Your task to perform on an android device: Empty the shopping cart on target. Search for "macbook pro 13 inch" on target, select the first entry, add it to the cart, then select checkout. Image 0: 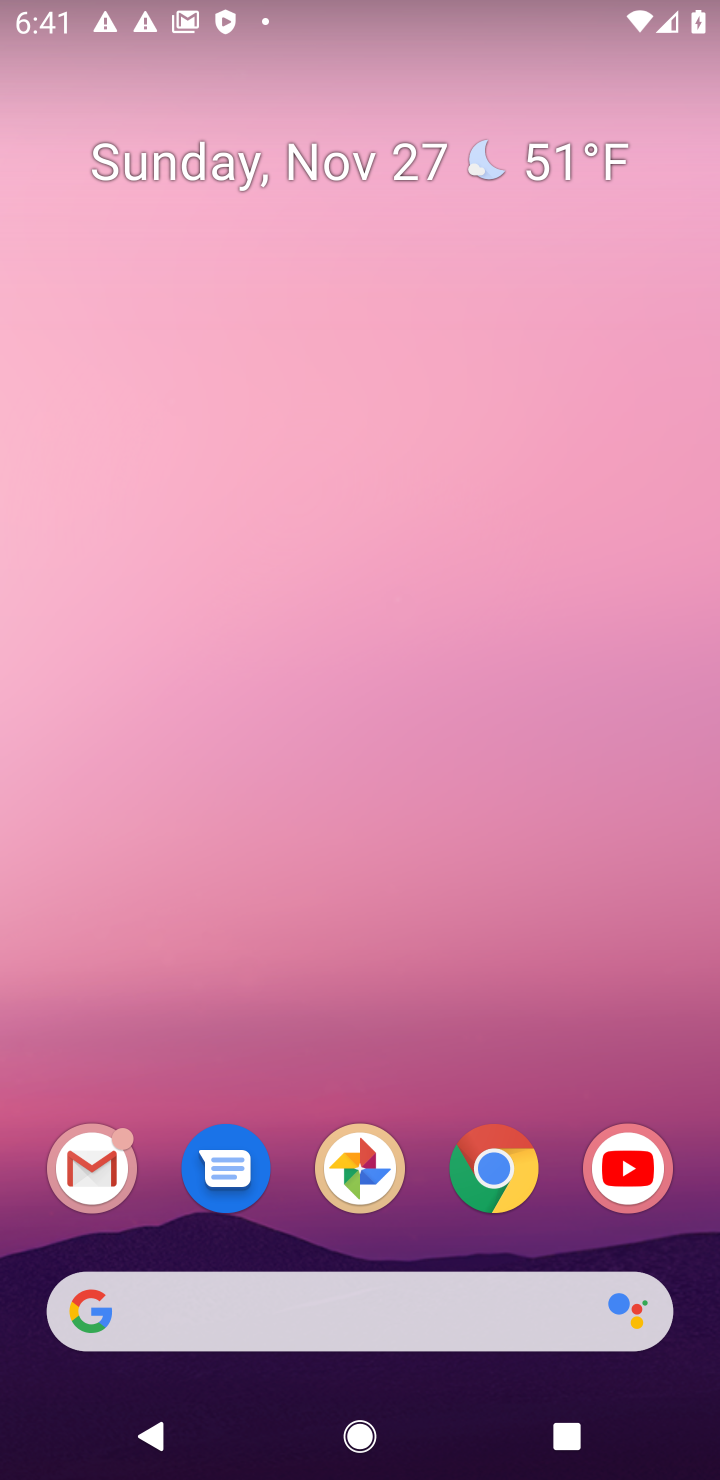
Step 0: click (494, 1162)
Your task to perform on an android device: Empty the shopping cart on target. Search for "macbook pro 13 inch" on target, select the first entry, add it to the cart, then select checkout. Image 1: 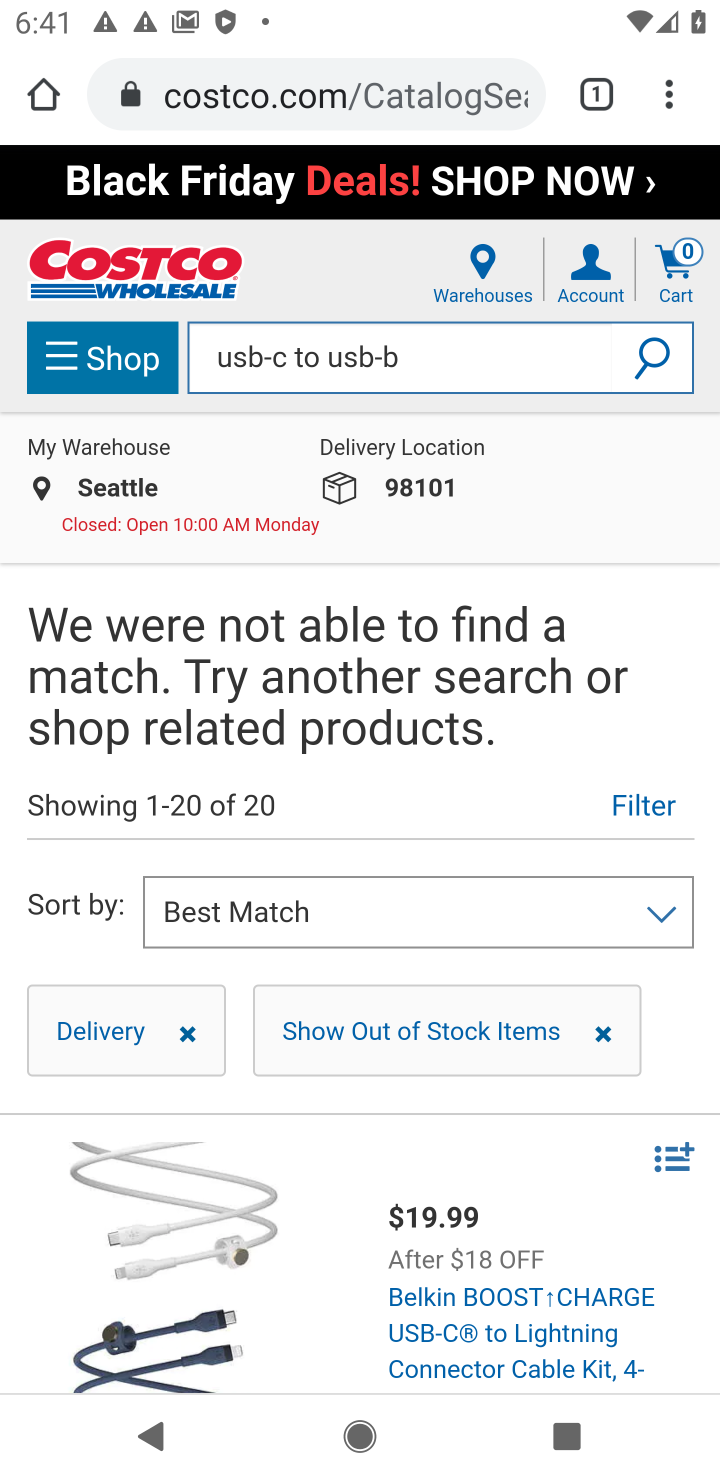
Step 1: click (362, 98)
Your task to perform on an android device: Empty the shopping cart on target. Search for "macbook pro 13 inch" on target, select the first entry, add it to the cart, then select checkout. Image 2: 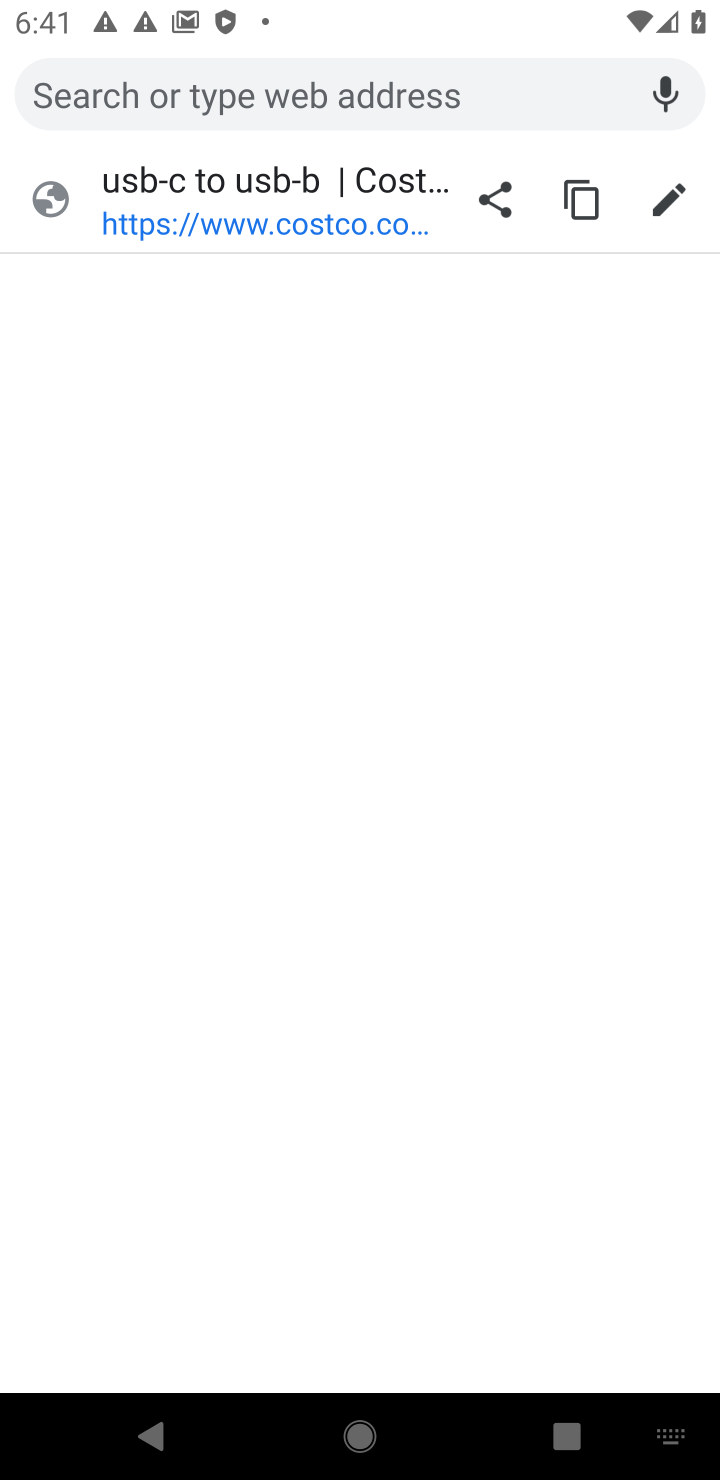
Step 2: type "target"
Your task to perform on an android device: Empty the shopping cart on target. Search for "macbook pro 13 inch" on target, select the first entry, add it to the cart, then select checkout. Image 3: 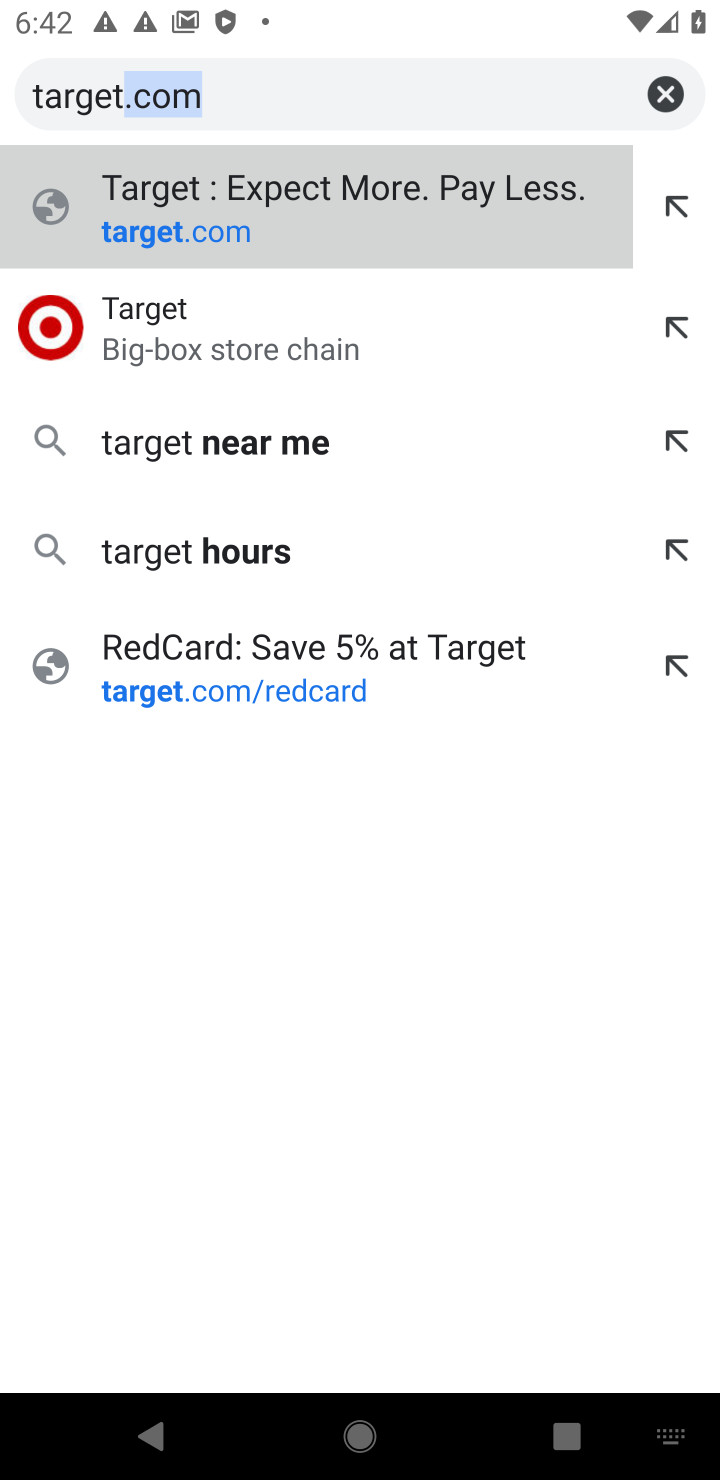
Step 3: click (171, 362)
Your task to perform on an android device: Empty the shopping cart on target. Search for "macbook pro 13 inch" on target, select the first entry, add it to the cart, then select checkout. Image 4: 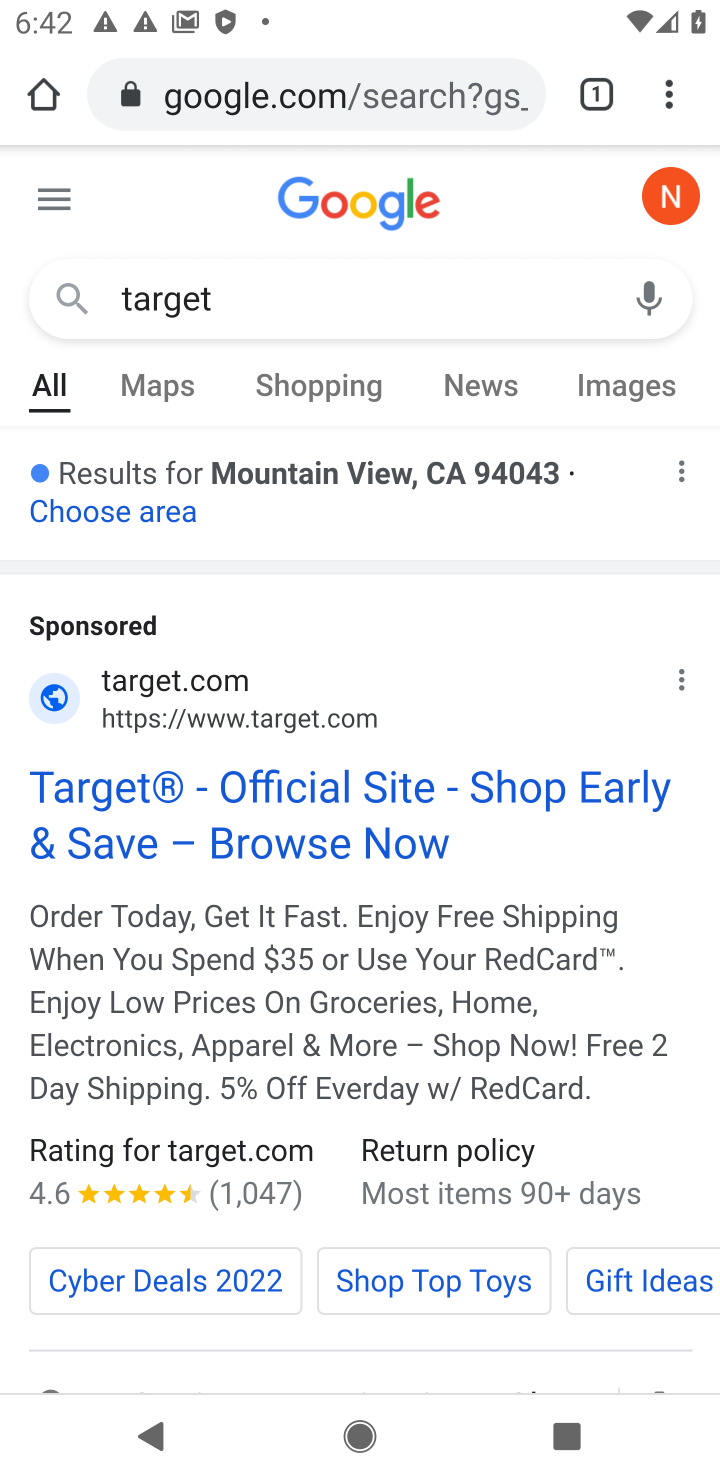
Step 4: click (266, 728)
Your task to perform on an android device: Empty the shopping cart on target. Search for "macbook pro 13 inch" on target, select the first entry, add it to the cart, then select checkout. Image 5: 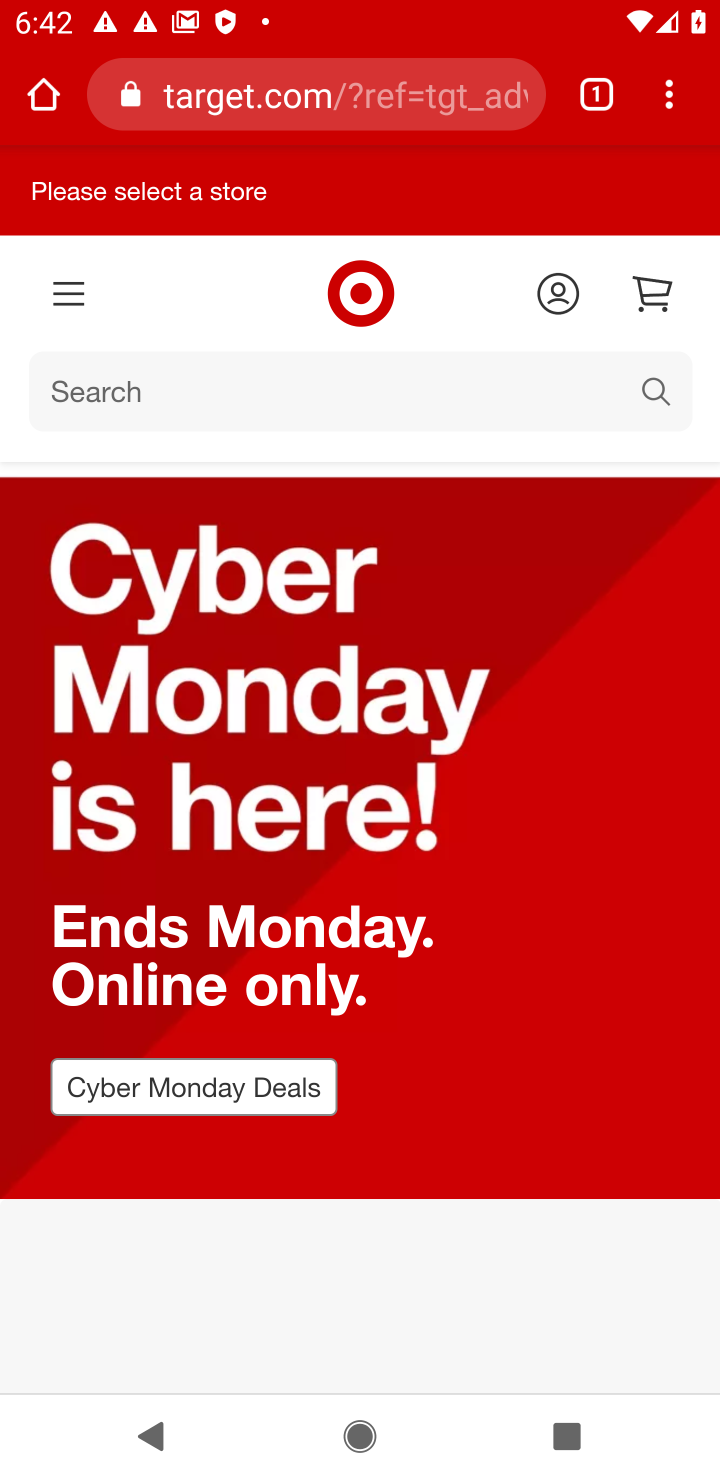
Step 5: click (655, 302)
Your task to perform on an android device: Empty the shopping cart on target. Search for "macbook pro 13 inch" on target, select the first entry, add it to the cart, then select checkout. Image 6: 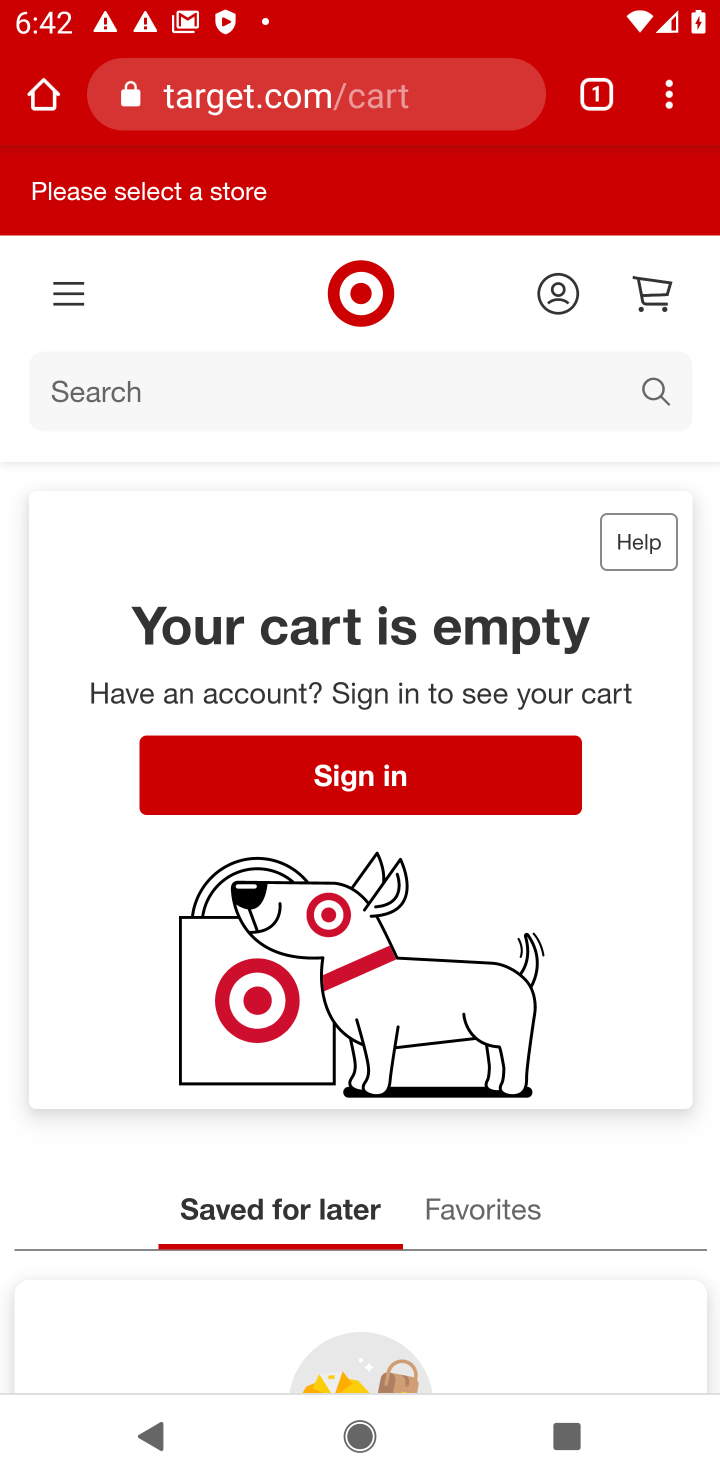
Step 6: click (298, 396)
Your task to perform on an android device: Empty the shopping cart on target. Search for "macbook pro 13 inch" on target, select the first entry, add it to the cart, then select checkout. Image 7: 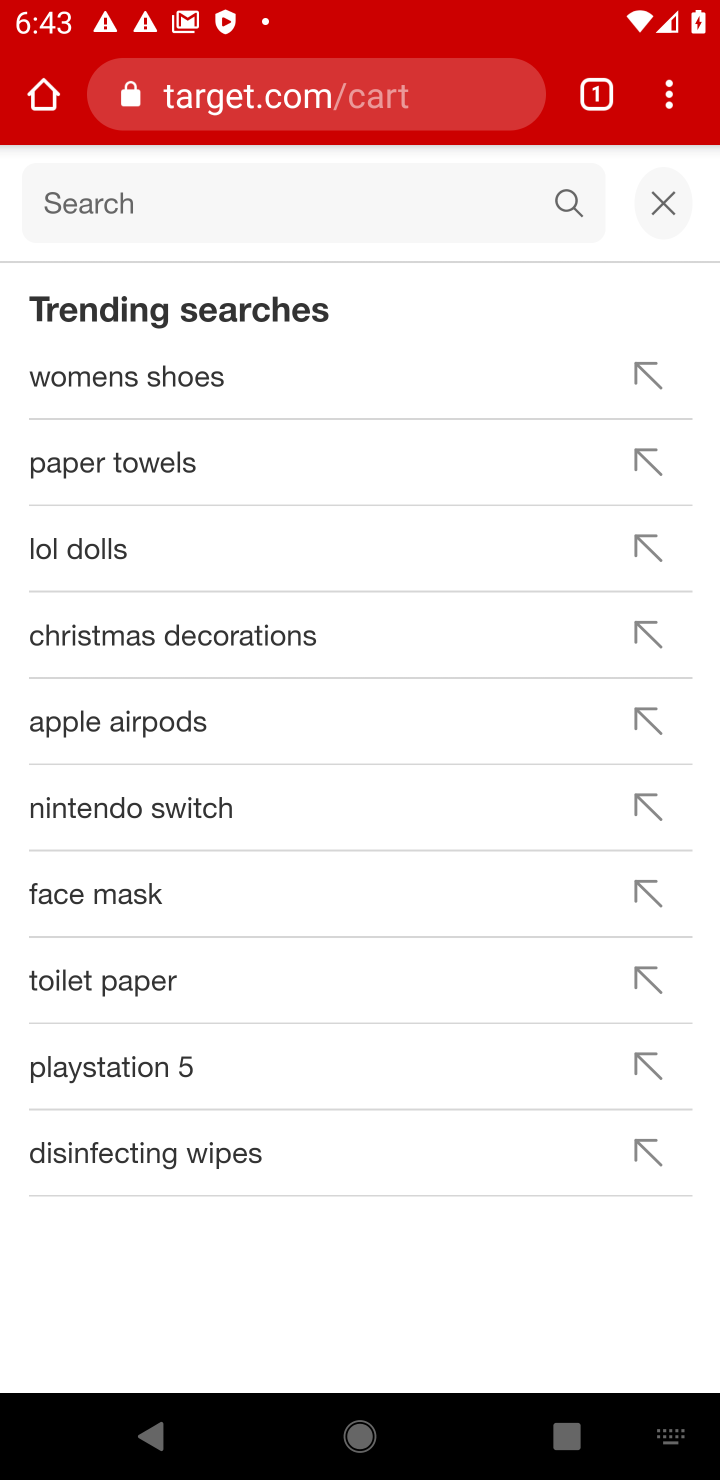
Step 7: type "macbook pro 13"
Your task to perform on an android device: Empty the shopping cart on target. Search for "macbook pro 13 inch" on target, select the first entry, add it to the cart, then select checkout. Image 8: 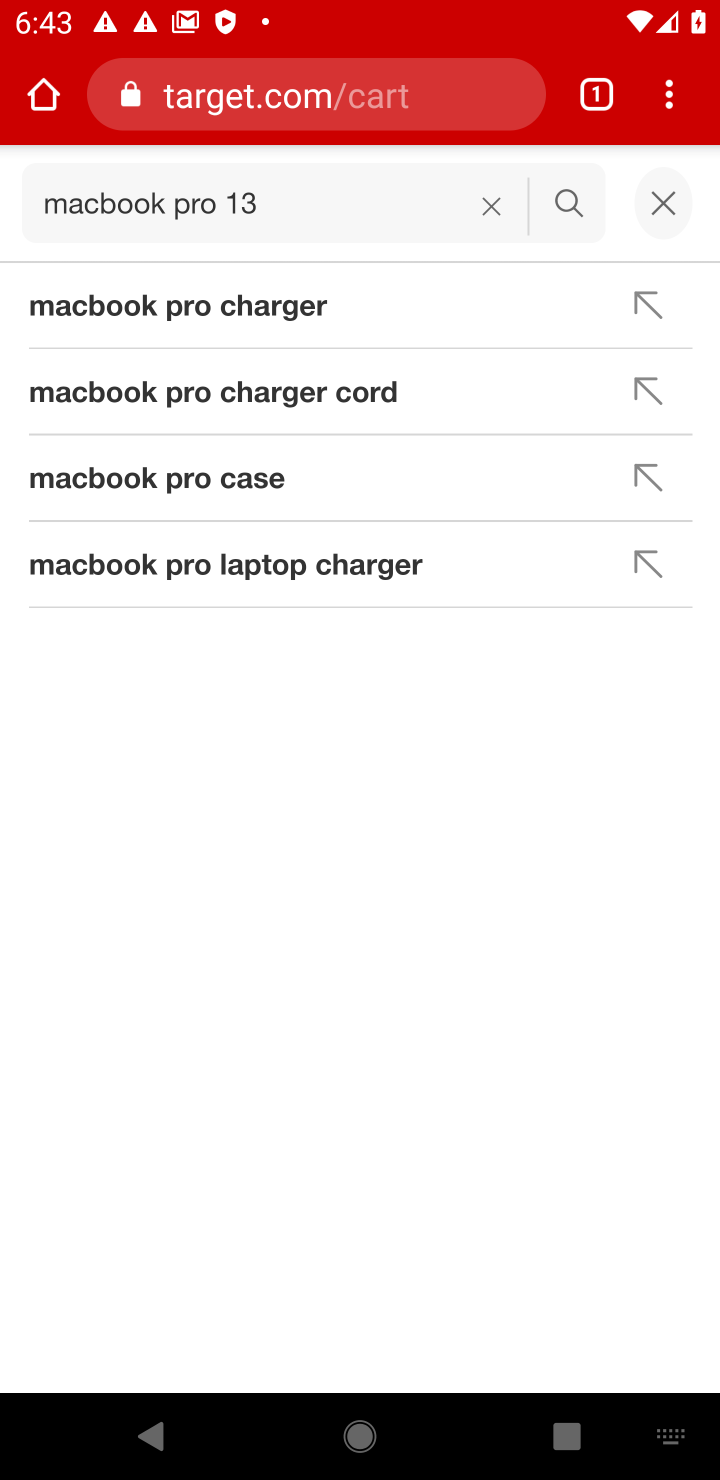
Step 8: click (569, 193)
Your task to perform on an android device: Empty the shopping cart on target. Search for "macbook pro 13 inch" on target, select the first entry, add it to the cart, then select checkout. Image 9: 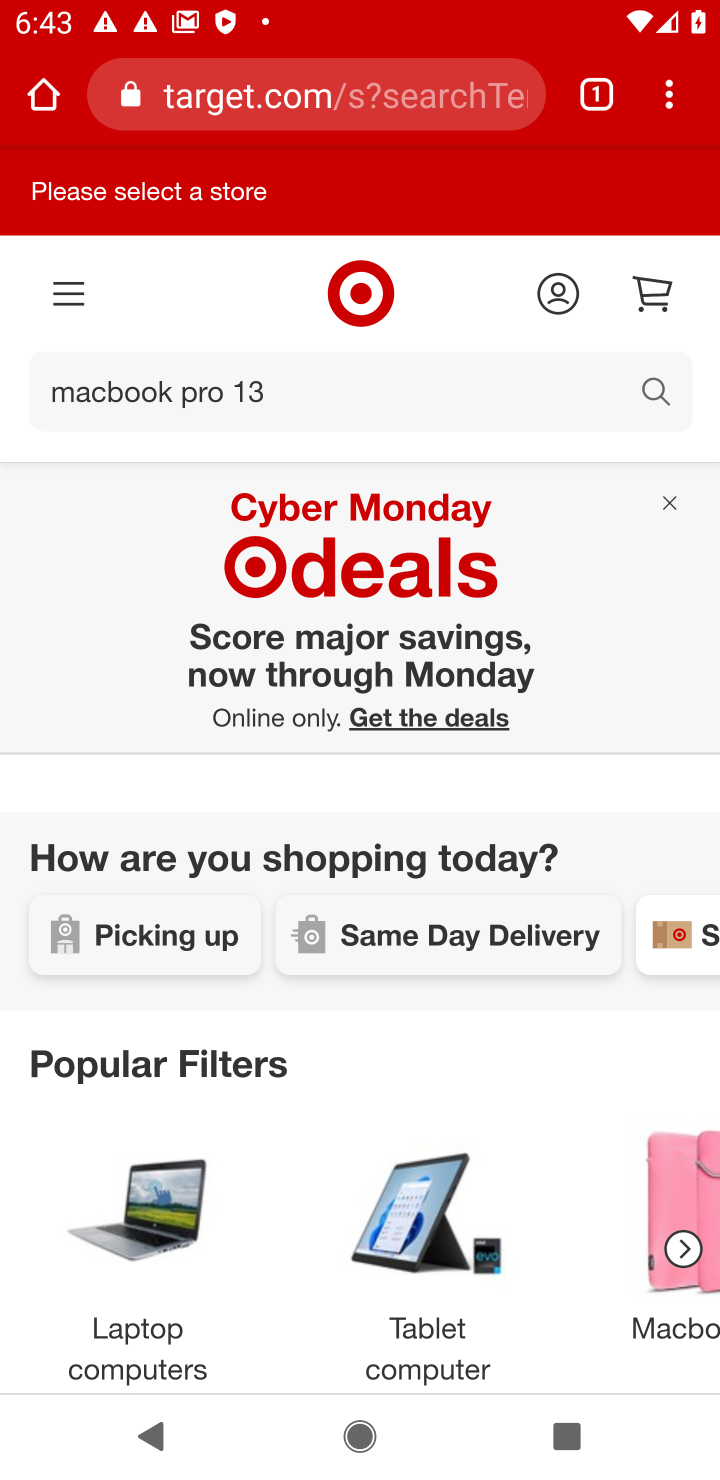
Step 9: drag from (265, 1151) to (371, 682)
Your task to perform on an android device: Empty the shopping cart on target. Search for "macbook pro 13 inch" on target, select the first entry, add it to the cart, then select checkout. Image 10: 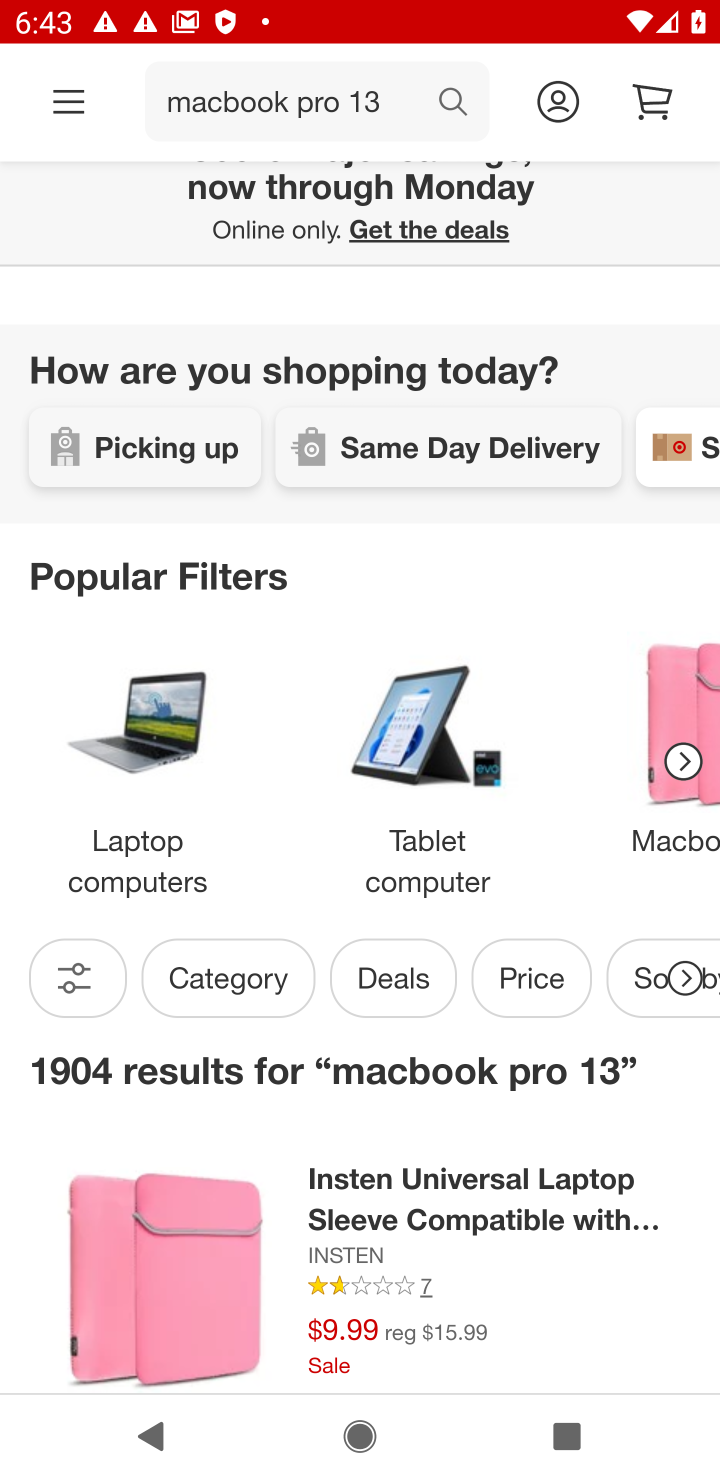
Step 10: drag from (333, 1122) to (429, 764)
Your task to perform on an android device: Empty the shopping cart on target. Search for "macbook pro 13 inch" on target, select the first entry, add it to the cart, then select checkout. Image 11: 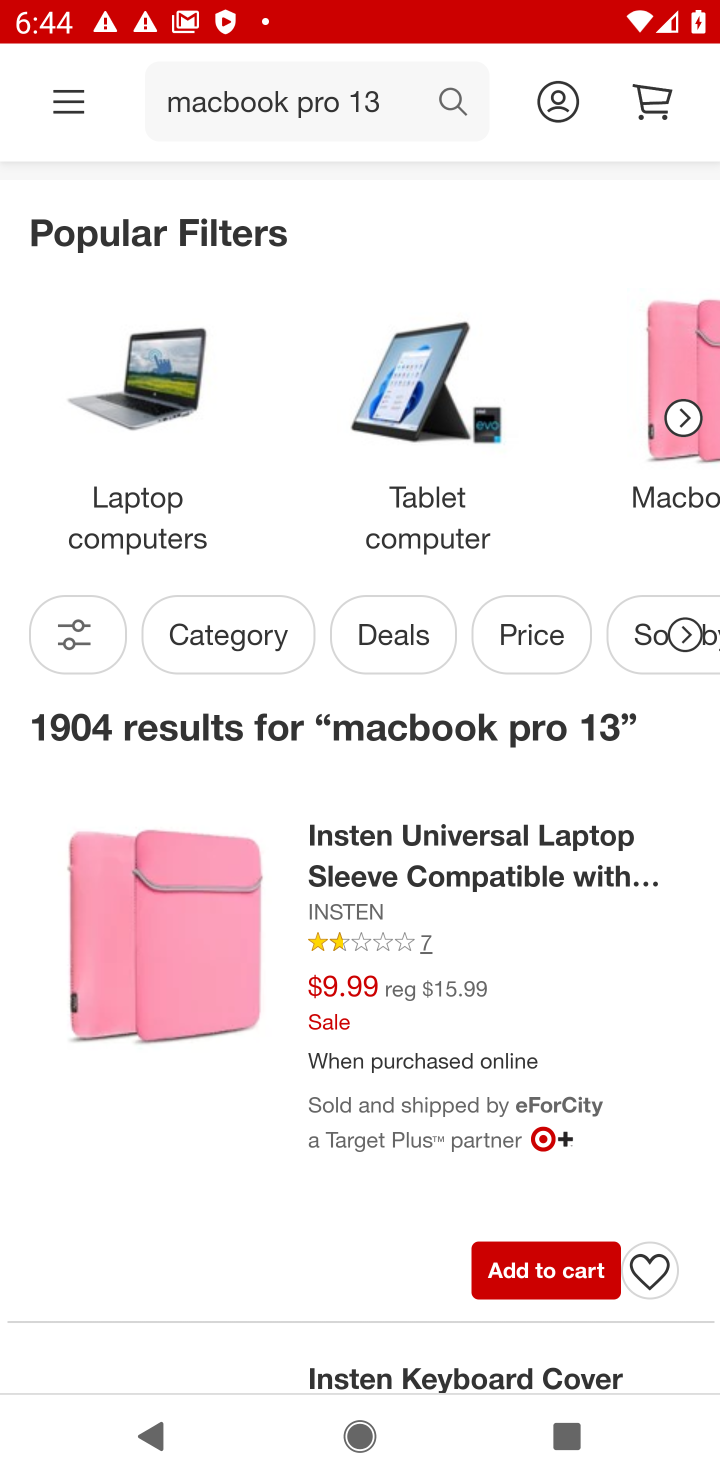
Step 11: click (528, 1268)
Your task to perform on an android device: Empty the shopping cart on target. Search for "macbook pro 13 inch" on target, select the first entry, add it to the cart, then select checkout. Image 12: 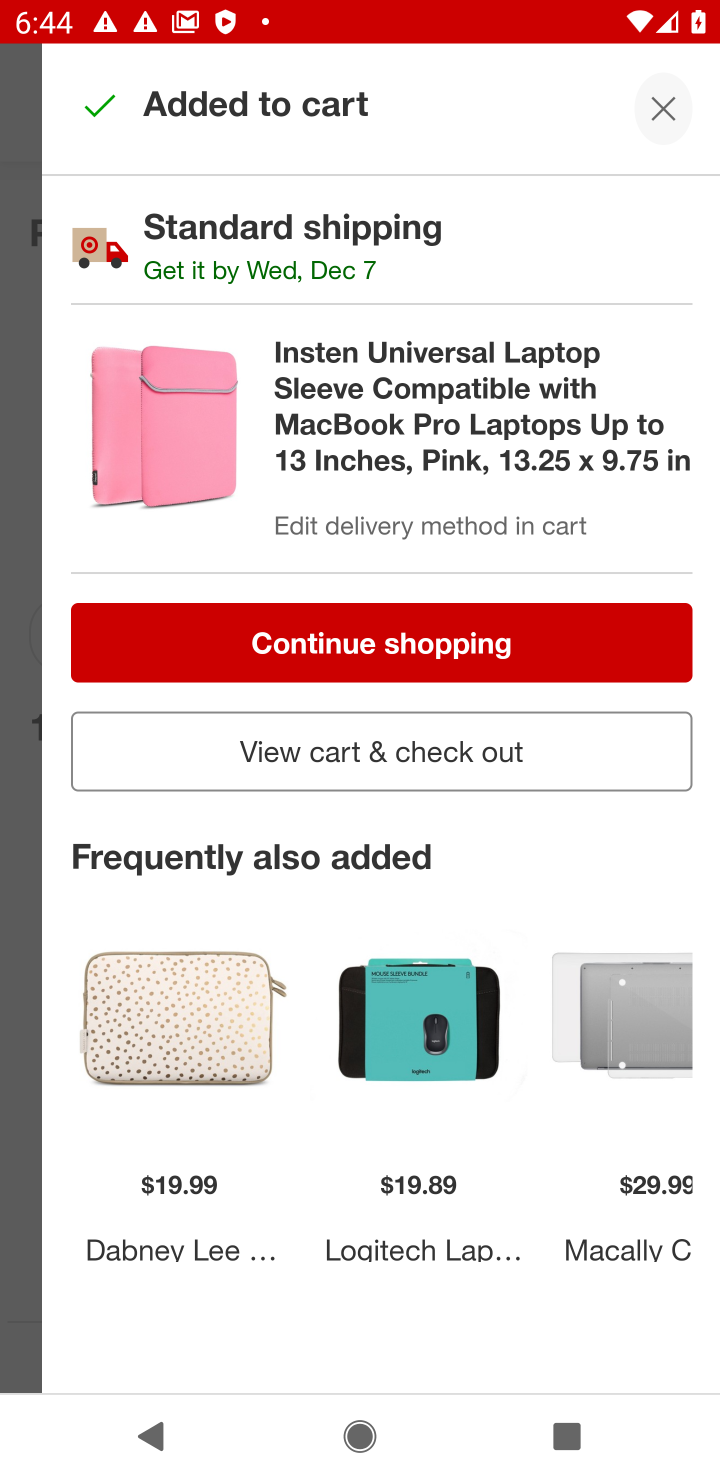
Step 12: click (501, 756)
Your task to perform on an android device: Empty the shopping cart on target. Search for "macbook pro 13 inch" on target, select the first entry, add it to the cart, then select checkout. Image 13: 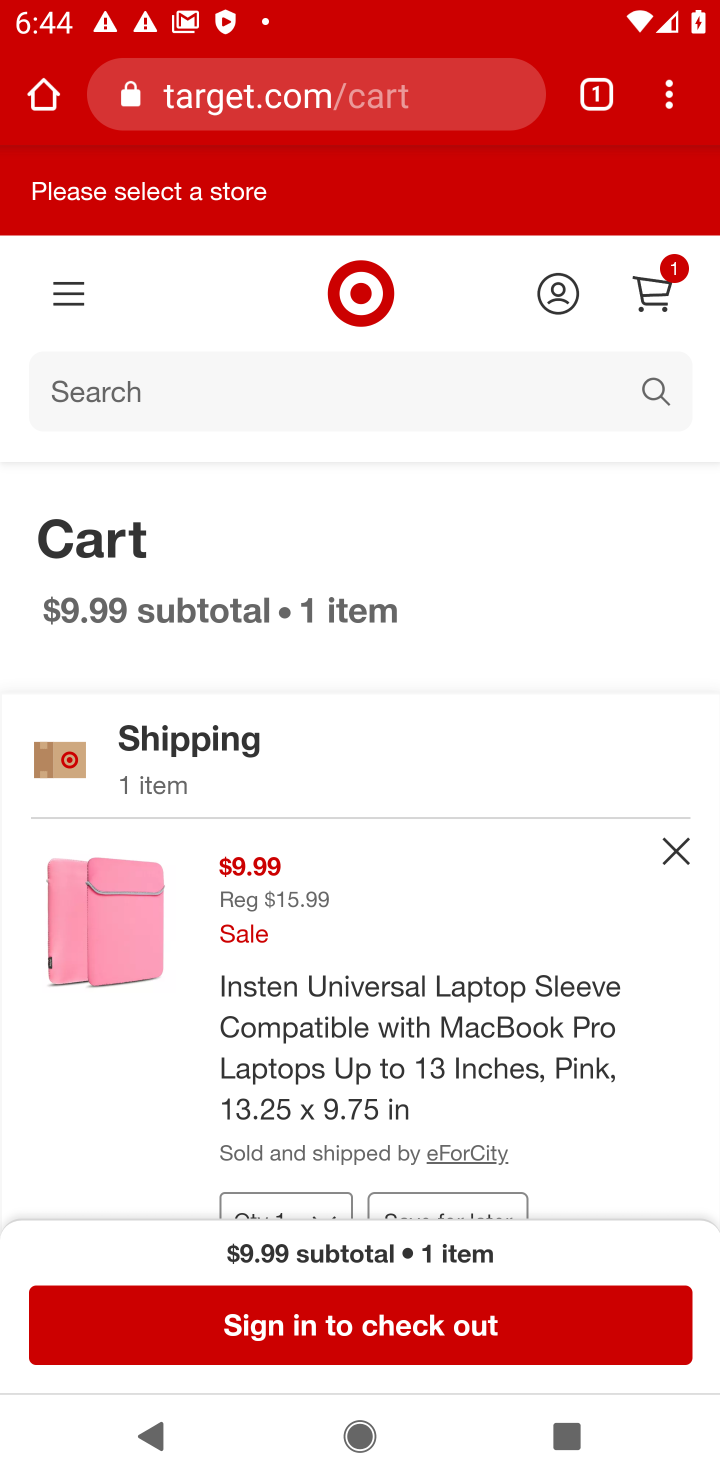
Step 13: task complete